Your task to perform on an android device: turn off notifications in google photos Image 0: 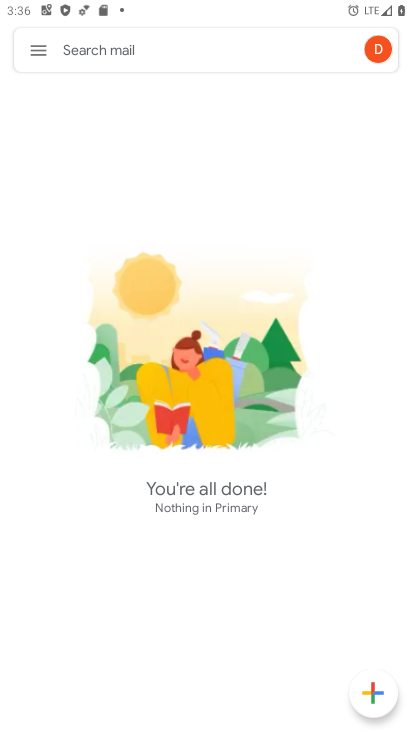
Step 0: press home button
Your task to perform on an android device: turn off notifications in google photos Image 1: 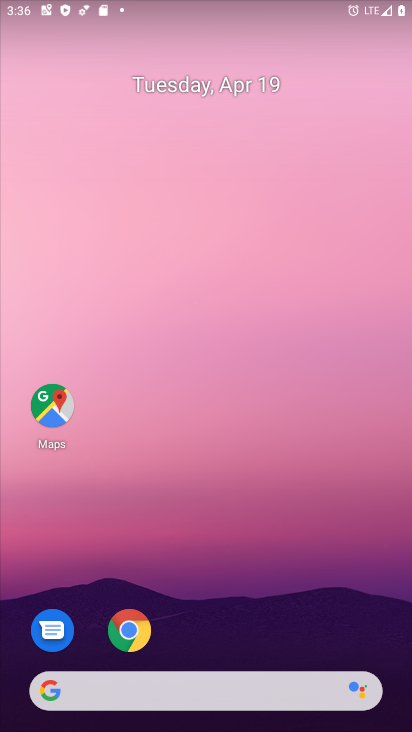
Step 1: drag from (207, 725) to (202, 115)
Your task to perform on an android device: turn off notifications in google photos Image 2: 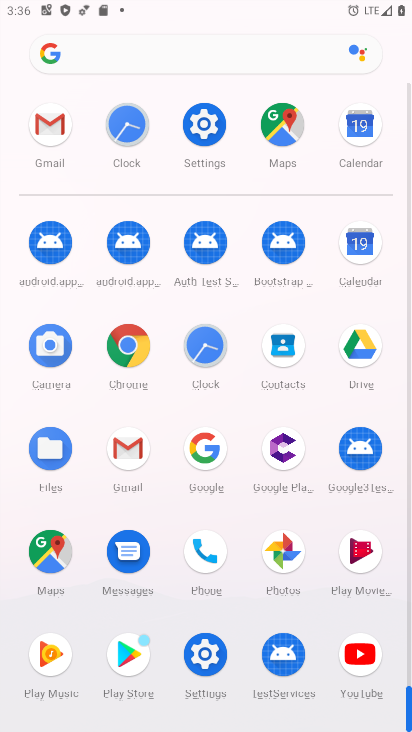
Step 2: click (282, 556)
Your task to perform on an android device: turn off notifications in google photos Image 3: 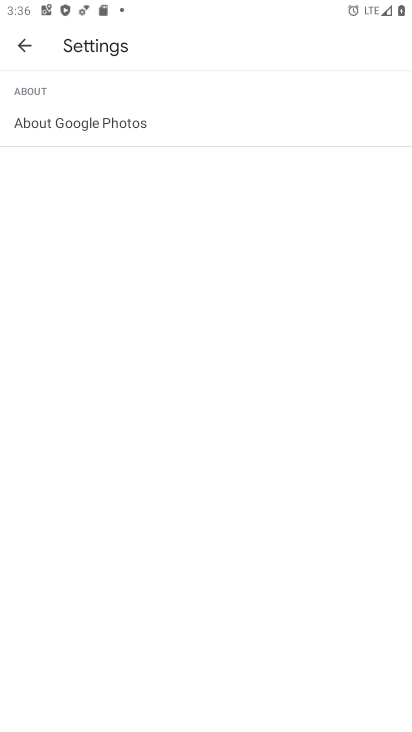
Step 3: click (26, 43)
Your task to perform on an android device: turn off notifications in google photos Image 4: 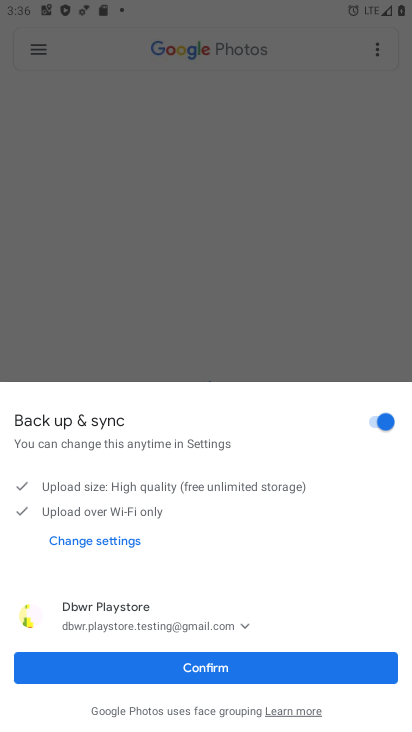
Step 4: click (220, 671)
Your task to perform on an android device: turn off notifications in google photos Image 5: 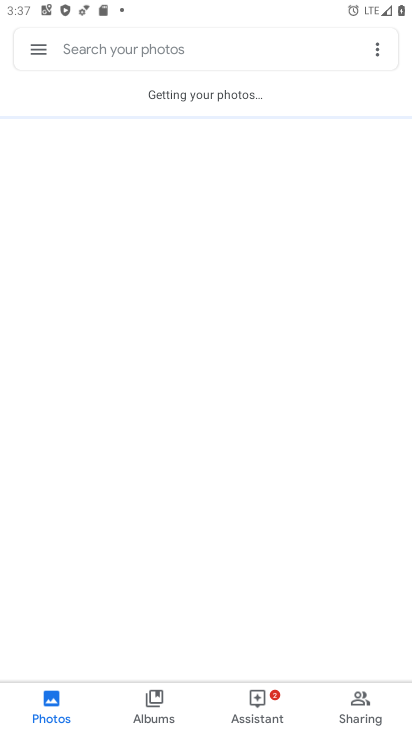
Step 5: click (38, 44)
Your task to perform on an android device: turn off notifications in google photos Image 6: 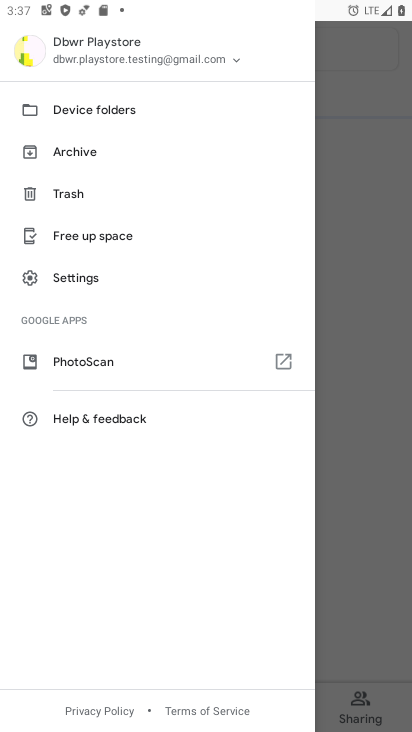
Step 6: click (82, 276)
Your task to perform on an android device: turn off notifications in google photos Image 7: 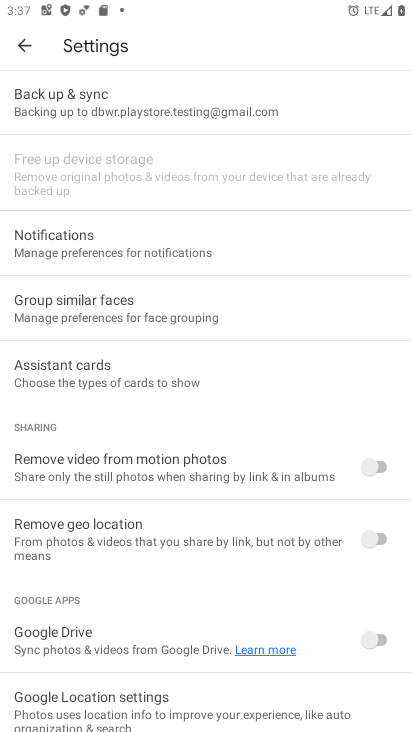
Step 7: click (77, 242)
Your task to perform on an android device: turn off notifications in google photos Image 8: 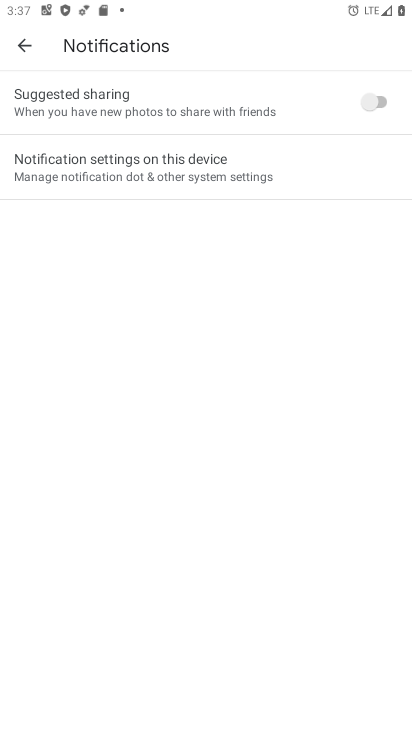
Step 8: click (100, 165)
Your task to perform on an android device: turn off notifications in google photos Image 9: 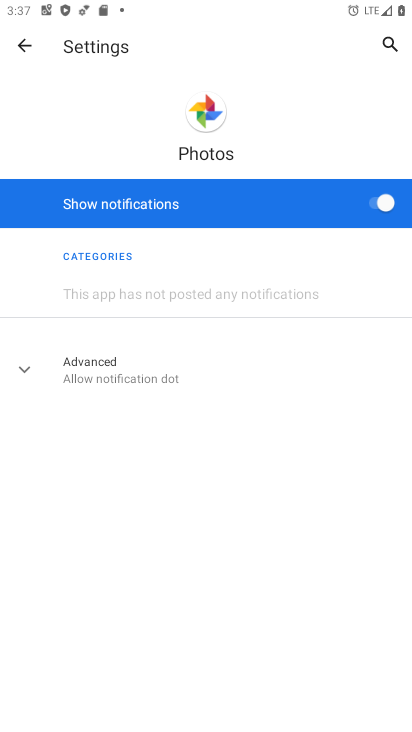
Step 9: click (372, 205)
Your task to perform on an android device: turn off notifications in google photos Image 10: 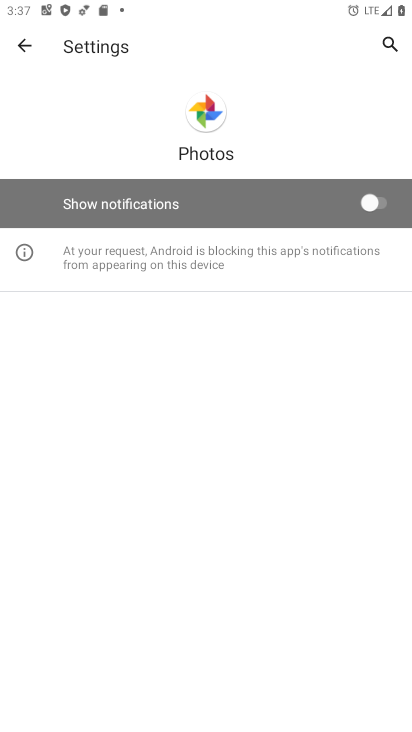
Step 10: task complete